Your task to perform on an android device: add a label to a message in the gmail app Image 0: 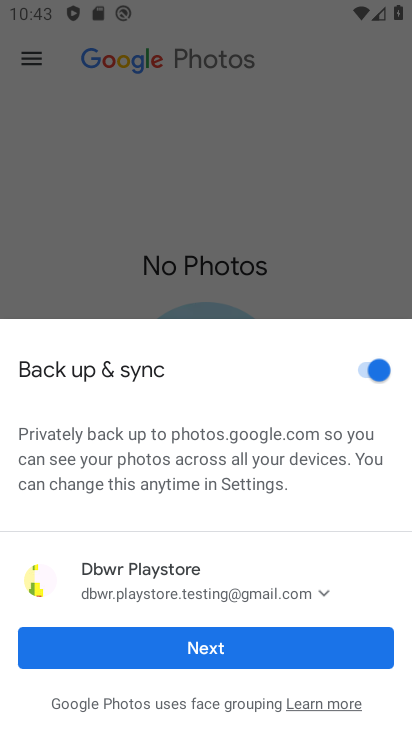
Step 0: press home button
Your task to perform on an android device: add a label to a message in the gmail app Image 1: 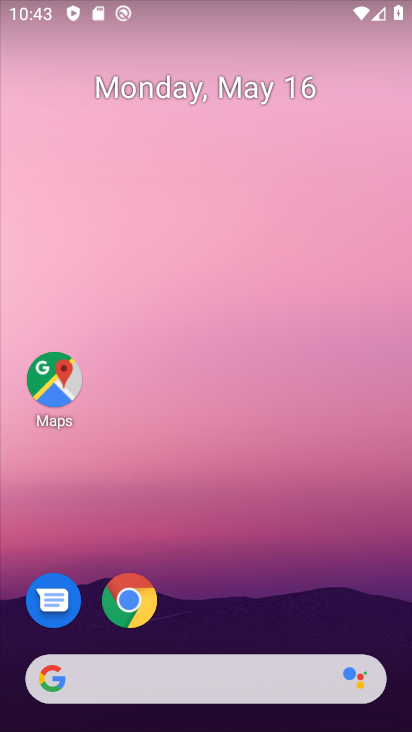
Step 1: drag from (158, 635) to (192, 266)
Your task to perform on an android device: add a label to a message in the gmail app Image 2: 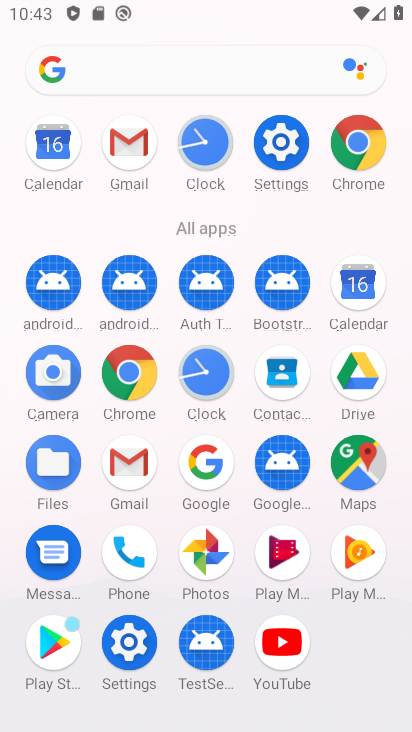
Step 2: click (126, 466)
Your task to perform on an android device: add a label to a message in the gmail app Image 3: 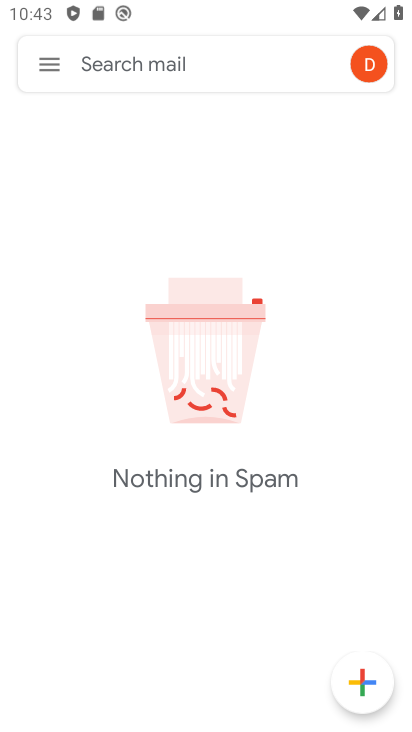
Step 3: click (55, 67)
Your task to perform on an android device: add a label to a message in the gmail app Image 4: 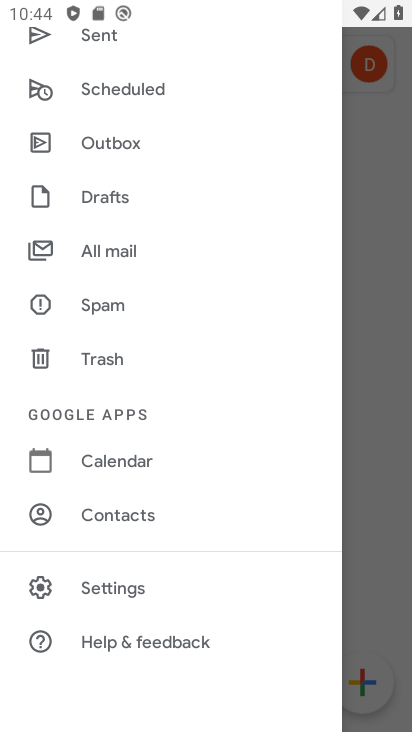
Step 4: click (122, 593)
Your task to perform on an android device: add a label to a message in the gmail app Image 5: 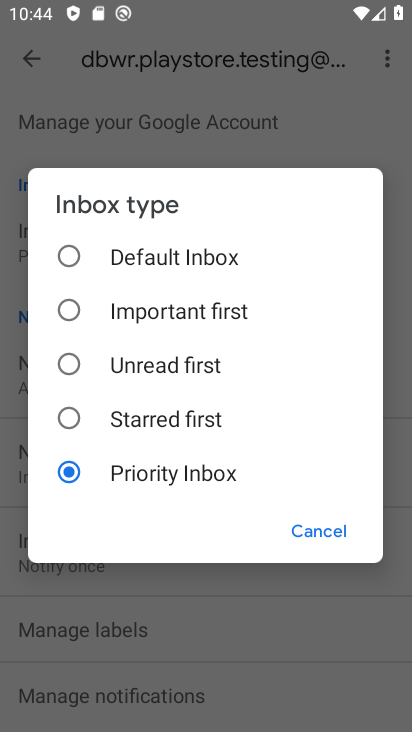
Step 5: click (298, 521)
Your task to perform on an android device: add a label to a message in the gmail app Image 6: 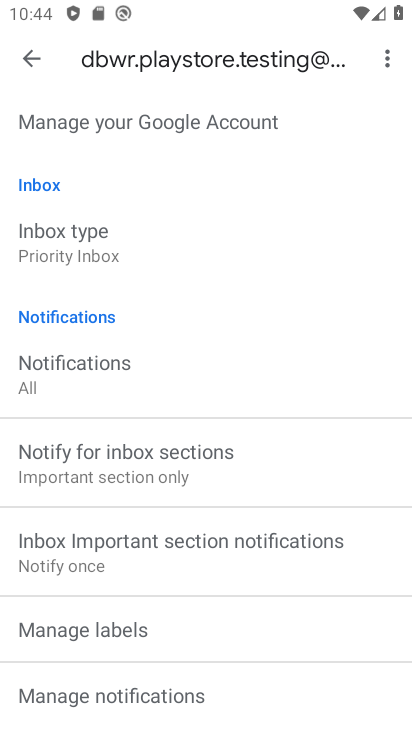
Step 6: click (33, 48)
Your task to perform on an android device: add a label to a message in the gmail app Image 7: 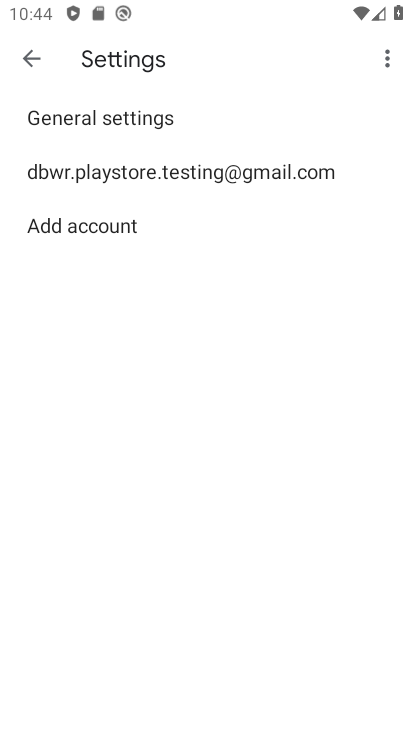
Step 7: click (11, 48)
Your task to perform on an android device: add a label to a message in the gmail app Image 8: 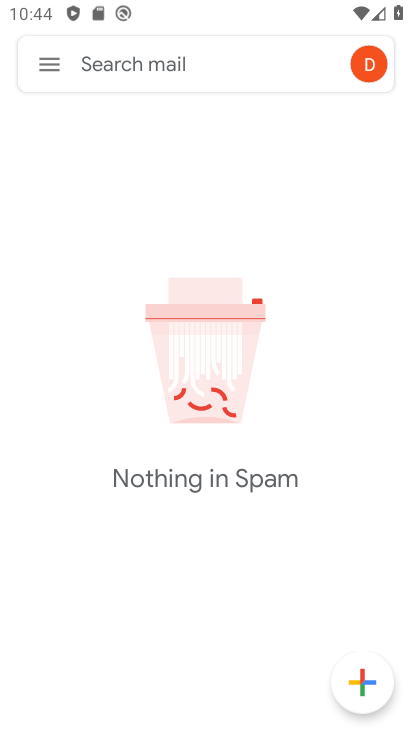
Step 8: click (46, 66)
Your task to perform on an android device: add a label to a message in the gmail app Image 9: 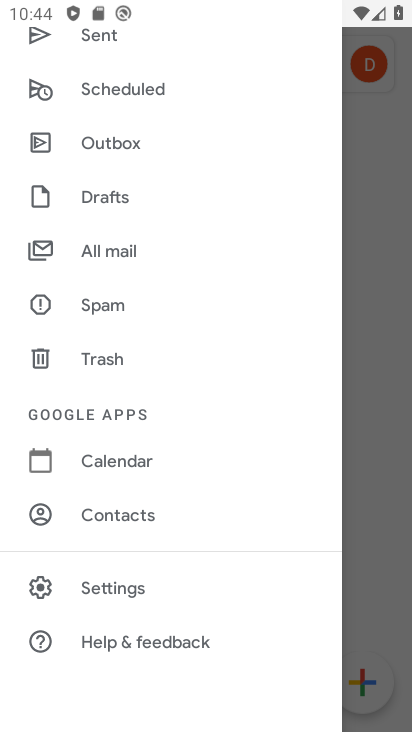
Step 9: click (135, 256)
Your task to perform on an android device: add a label to a message in the gmail app Image 10: 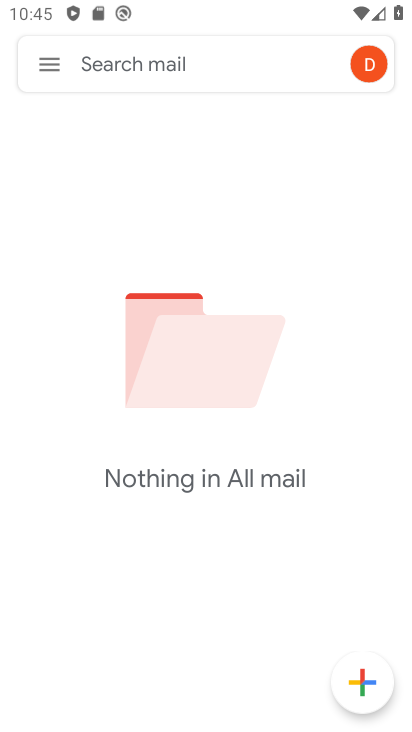
Step 10: task complete